Your task to perform on an android device: Open Google Image 0: 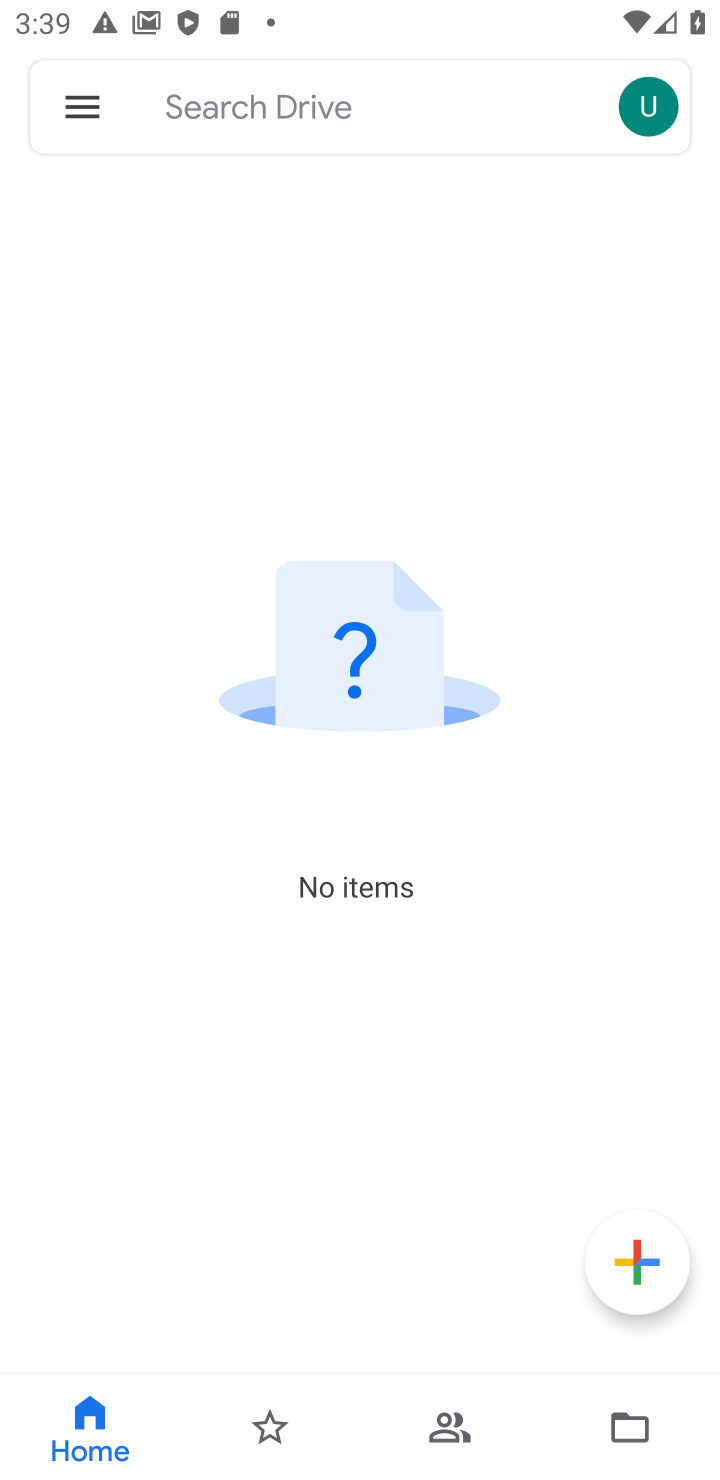
Step 0: press home button
Your task to perform on an android device: Open Google Image 1: 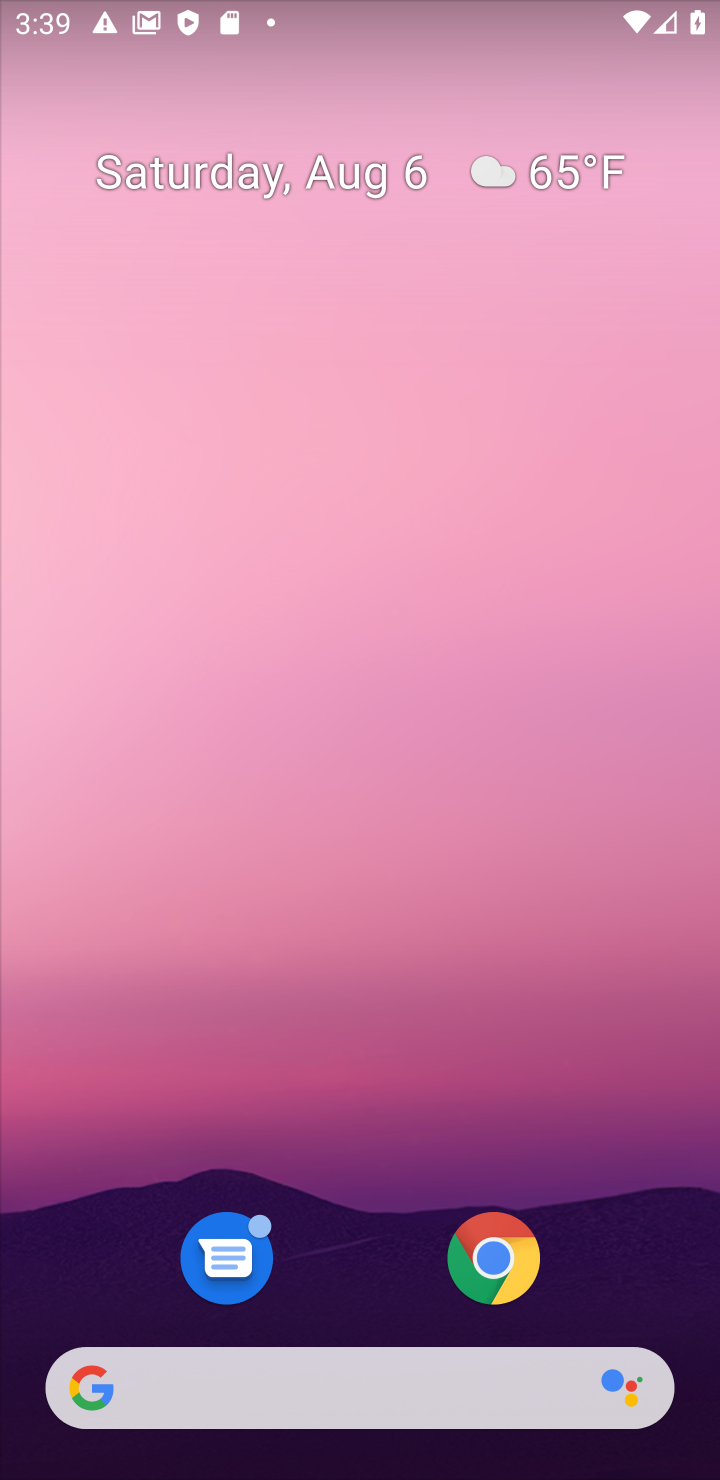
Step 1: click (89, 1388)
Your task to perform on an android device: Open Google Image 2: 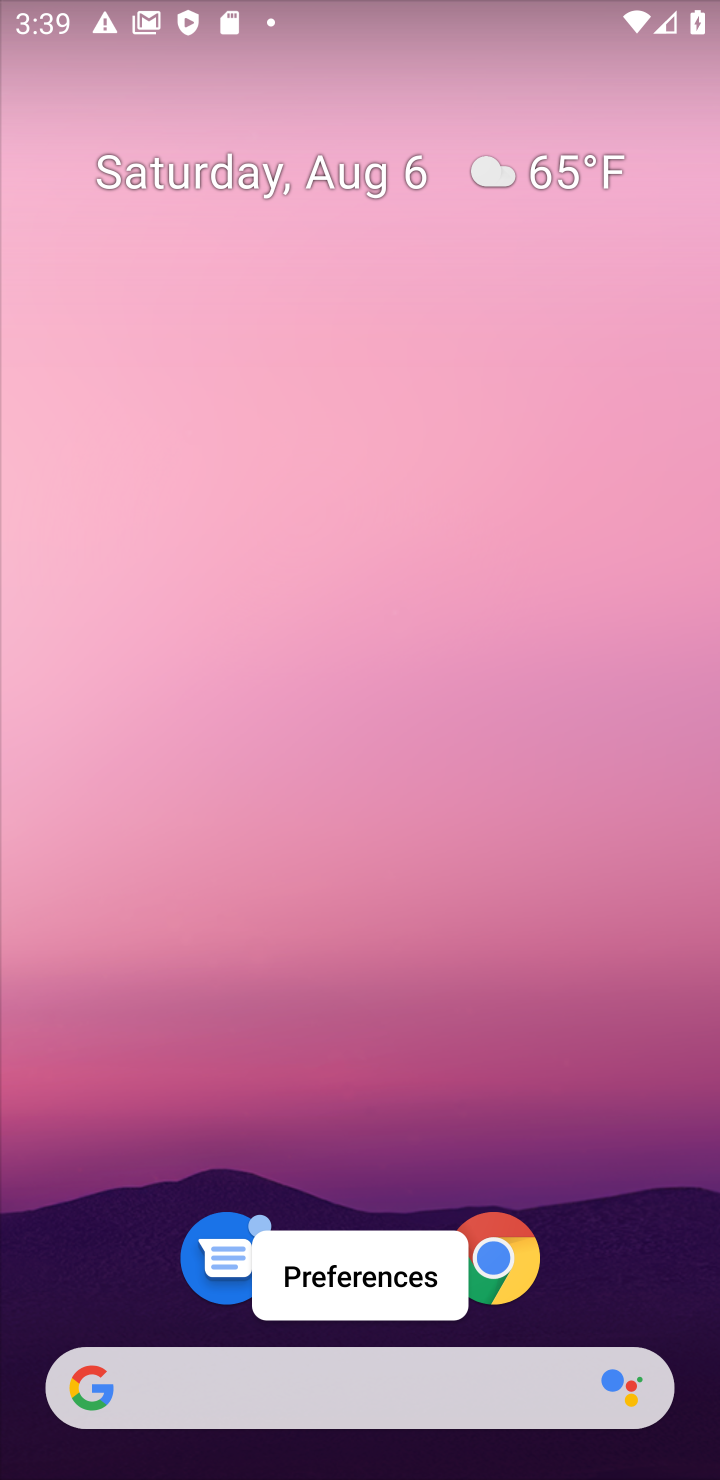
Step 2: click (265, 1377)
Your task to perform on an android device: Open Google Image 3: 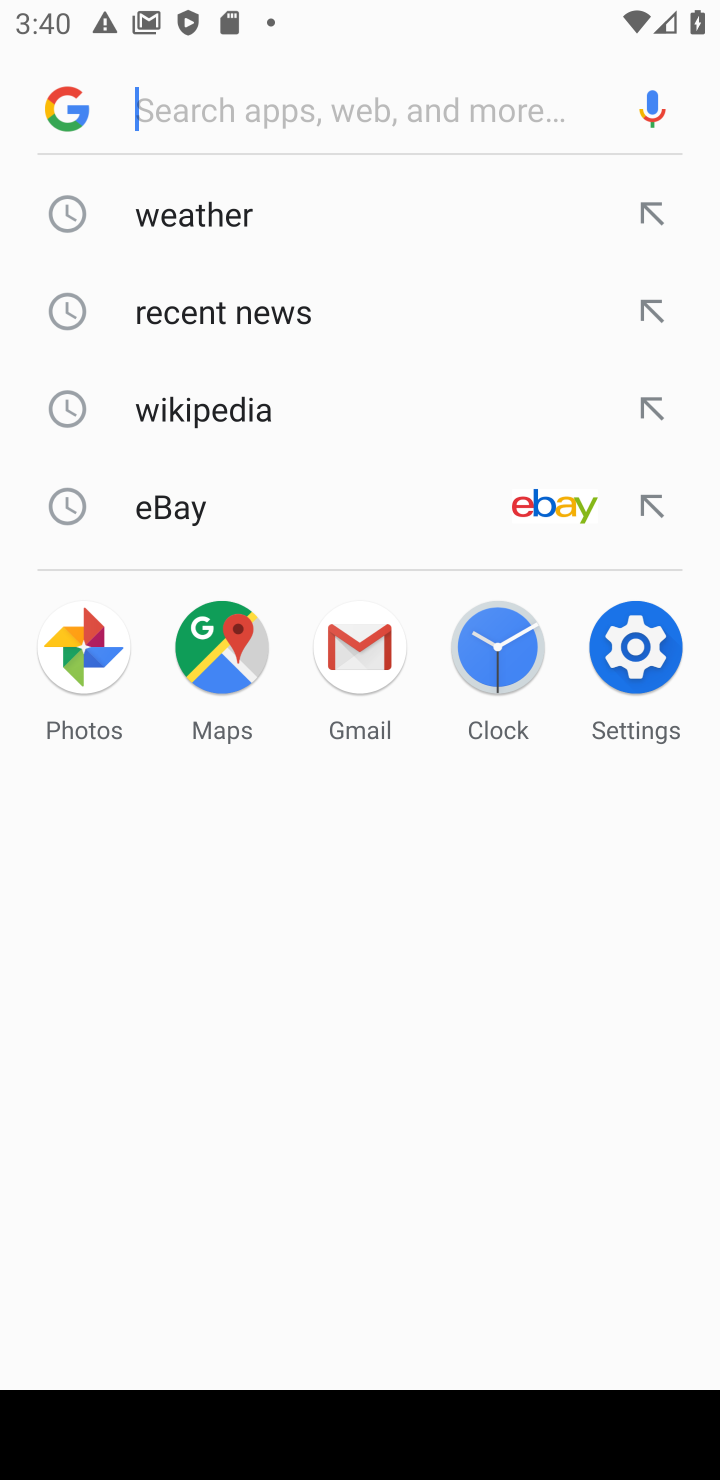
Step 3: click (74, 103)
Your task to perform on an android device: Open Google Image 4: 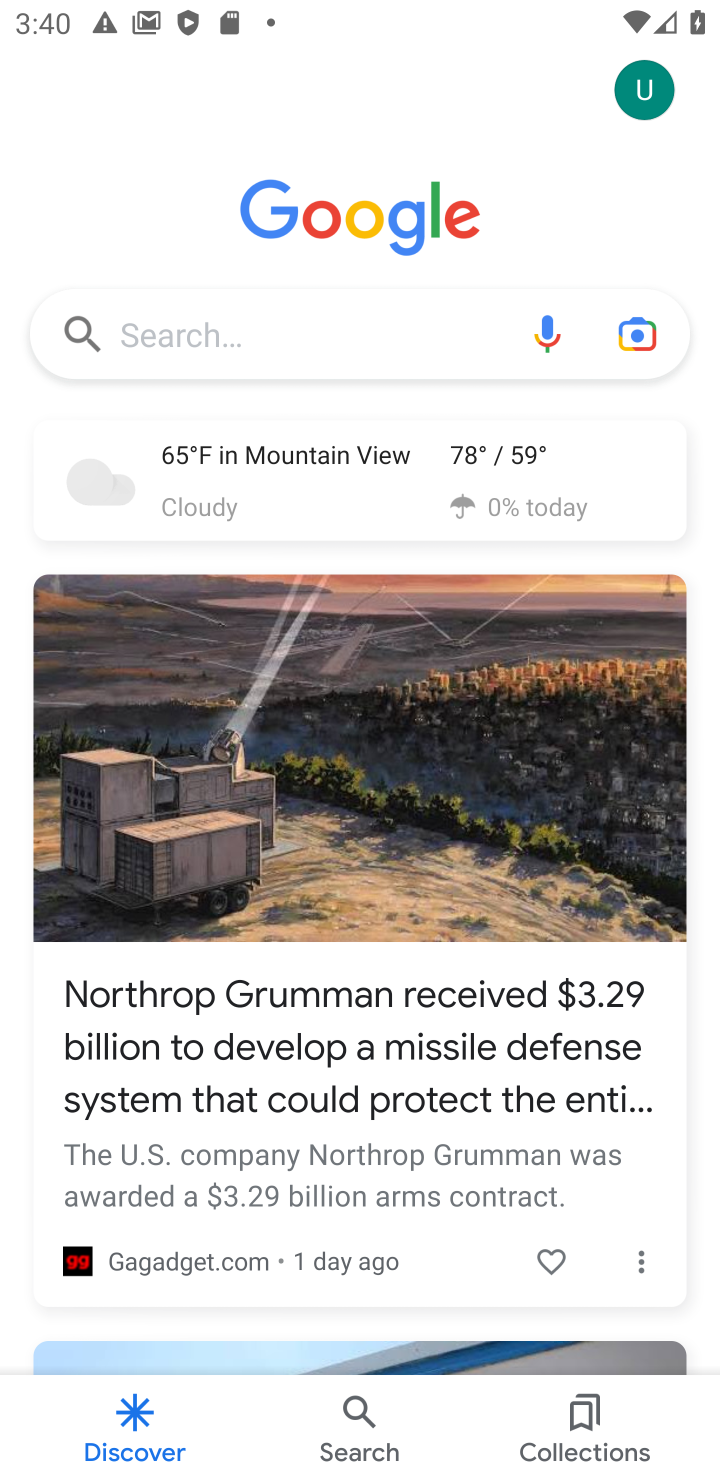
Step 4: task complete